Your task to perform on an android device: Open internet settings Image 0: 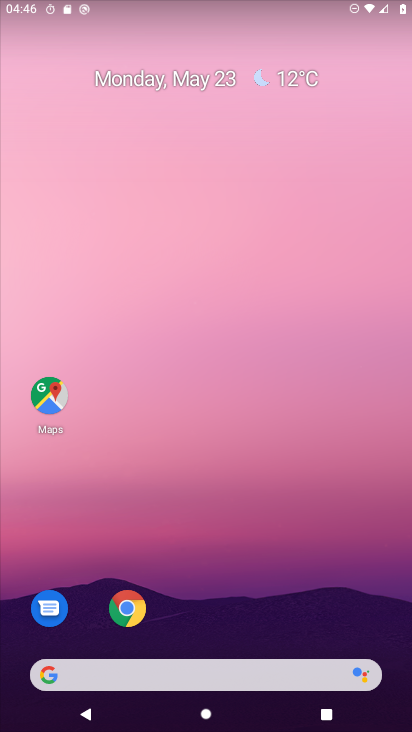
Step 0: drag from (293, 286) to (241, 58)
Your task to perform on an android device: Open internet settings Image 1: 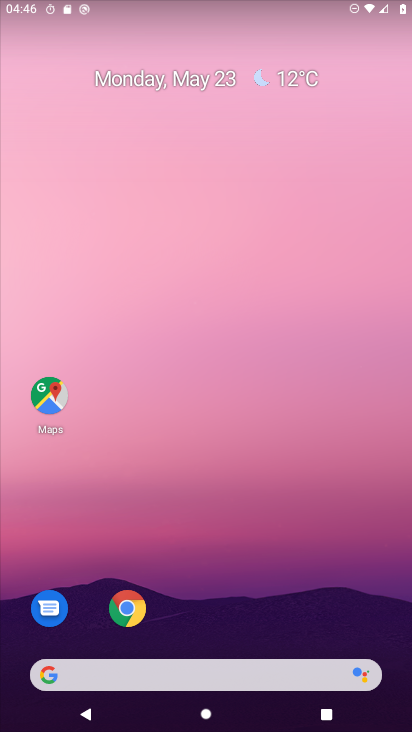
Step 1: drag from (271, 613) to (189, 0)
Your task to perform on an android device: Open internet settings Image 2: 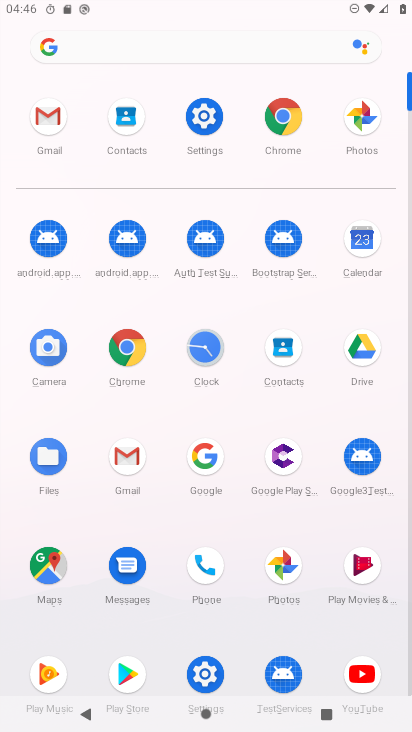
Step 2: click (206, 142)
Your task to perform on an android device: Open internet settings Image 3: 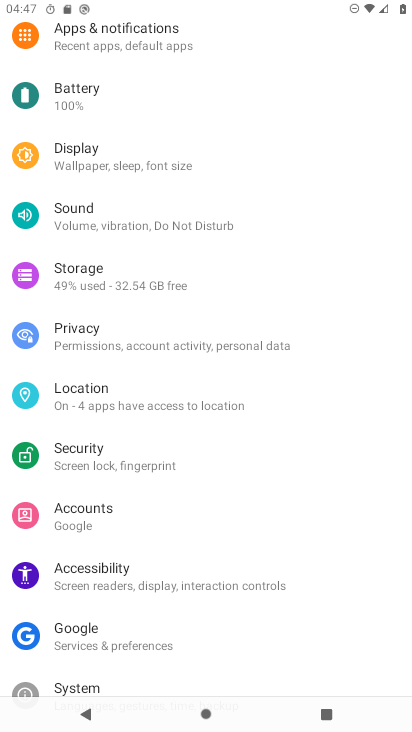
Step 3: drag from (208, 86) to (253, 712)
Your task to perform on an android device: Open internet settings Image 4: 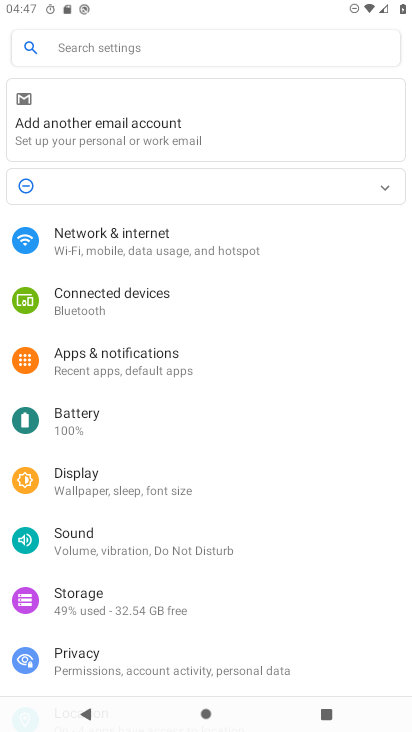
Step 4: click (222, 248)
Your task to perform on an android device: Open internet settings Image 5: 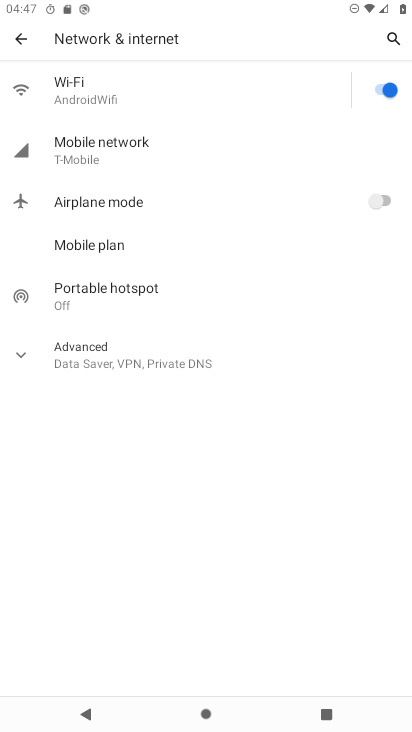
Step 5: task complete